Your task to perform on an android device: snooze an email in the gmail app Image 0: 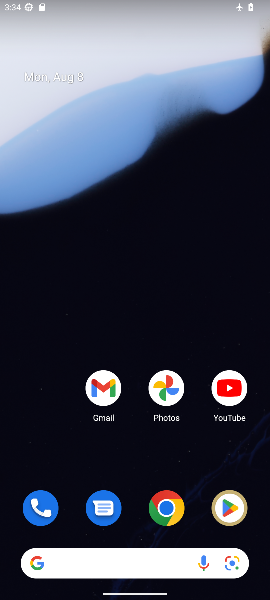
Step 0: click (104, 387)
Your task to perform on an android device: snooze an email in the gmail app Image 1: 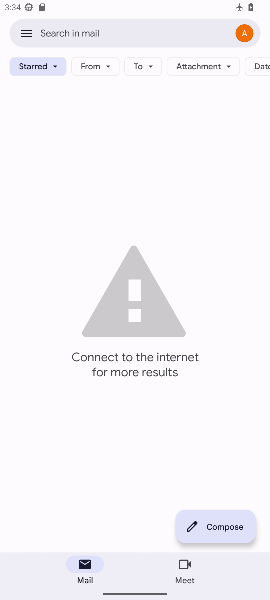
Step 1: click (25, 33)
Your task to perform on an android device: snooze an email in the gmail app Image 2: 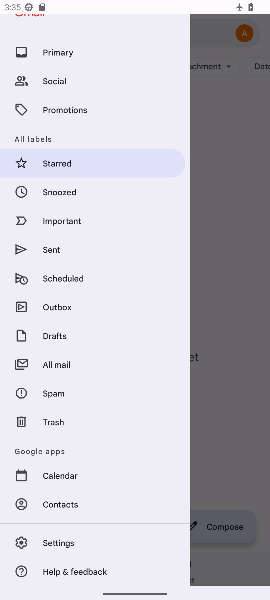
Step 2: click (67, 190)
Your task to perform on an android device: snooze an email in the gmail app Image 3: 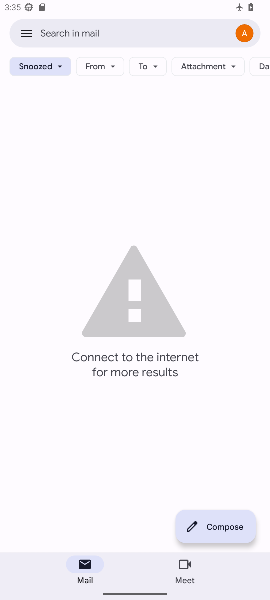
Step 3: task complete